Your task to perform on an android device: change notification settings in the gmail app Image 0: 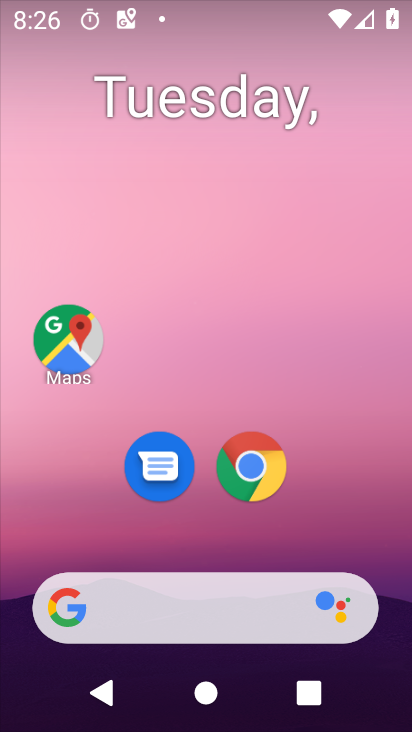
Step 0: drag from (216, 572) to (281, 84)
Your task to perform on an android device: change notification settings in the gmail app Image 1: 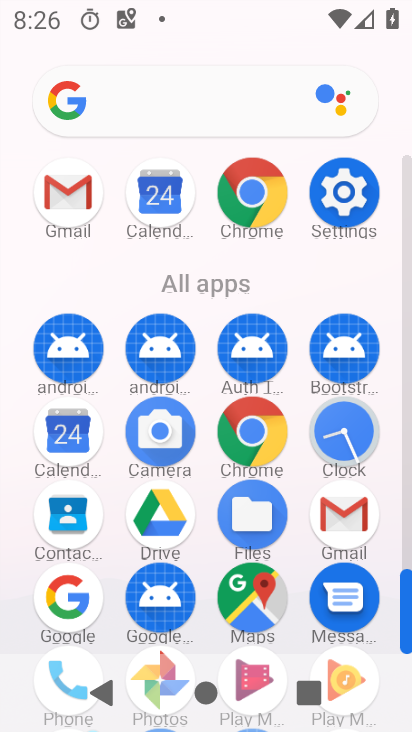
Step 1: click (353, 529)
Your task to perform on an android device: change notification settings in the gmail app Image 2: 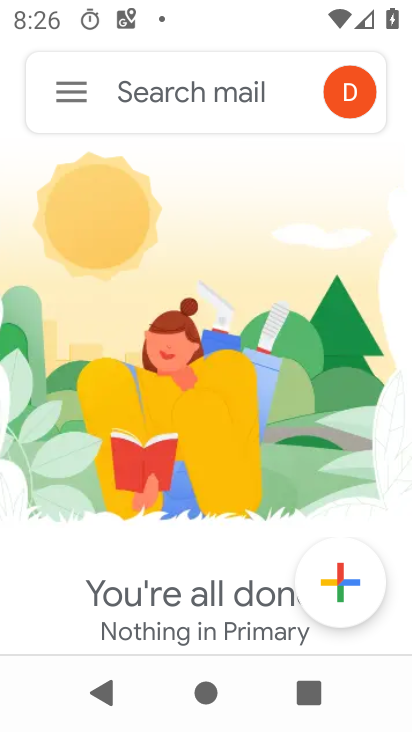
Step 2: click (75, 82)
Your task to perform on an android device: change notification settings in the gmail app Image 3: 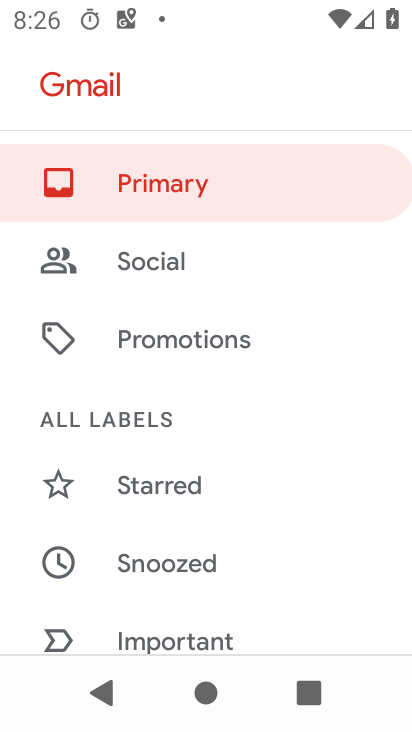
Step 3: drag from (144, 539) to (195, 70)
Your task to perform on an android device: change notification settings in the gmail app Image 4: 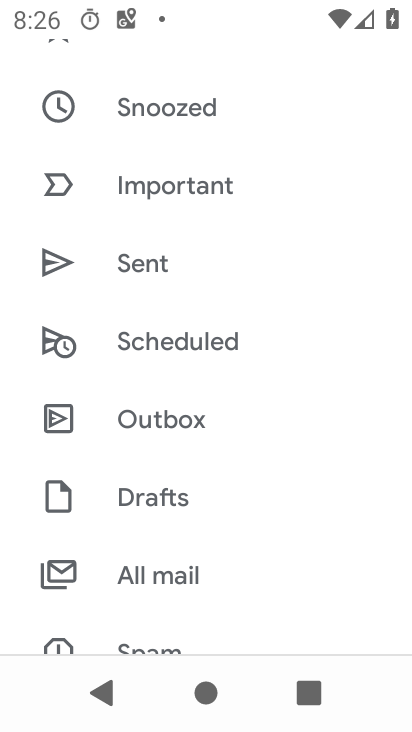
Step 4: drag from (172, 545) to (181, 178)
Your task to perform on an android device: change notification settings in the gmail app Image 5: 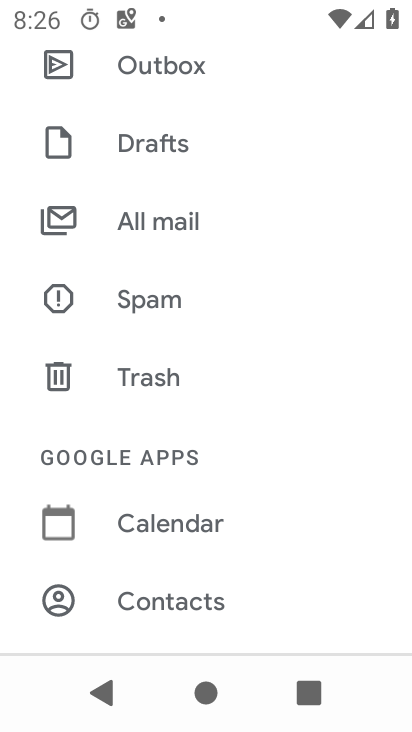
Step 5: drag from (173, 601) to (175, 320)
Your task to perform on an android device: change notification settings in the gmail app Image 6: 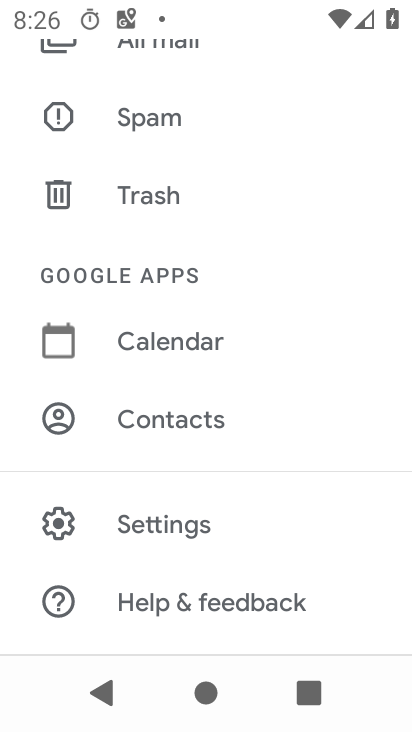
Step 6: click (181, 519)
Your task to perform on an android device: change notification settings in the gmail app Image 7: 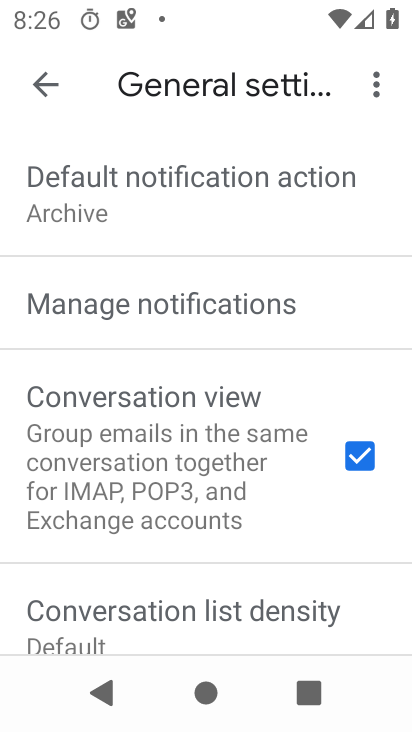
Step 7: click (141, 293)
Your task to perform on an android device: change notification settings in the gmail app Image 8: 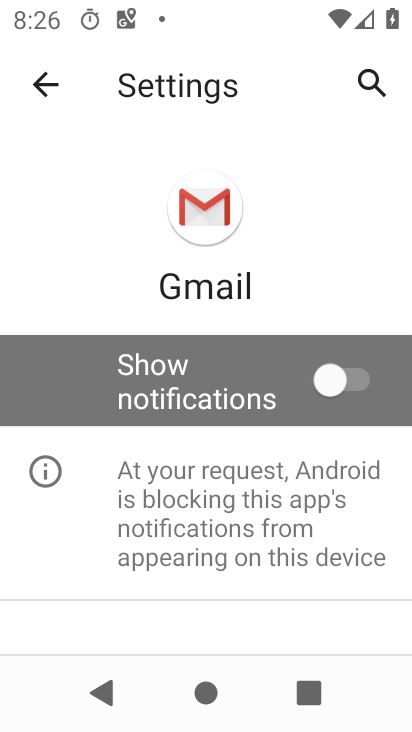
Step 8: click (378, 391)
Your task to perform on an android device: change notification settings in the gmail app Image 9: 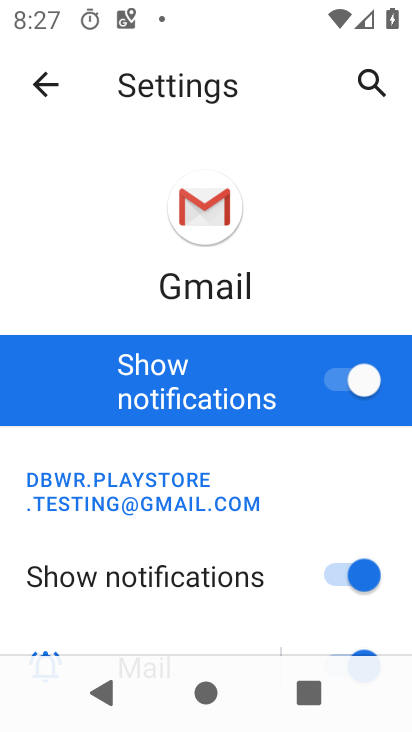
Step 9: task complete